Your task to perform on an android device: Go to Maps Image 0: 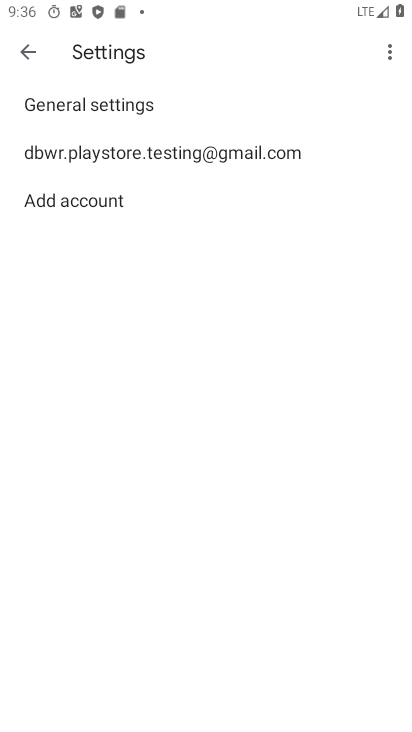
Step 0: press back button
Your task to perform on an android device: Go to Maps Image 1: 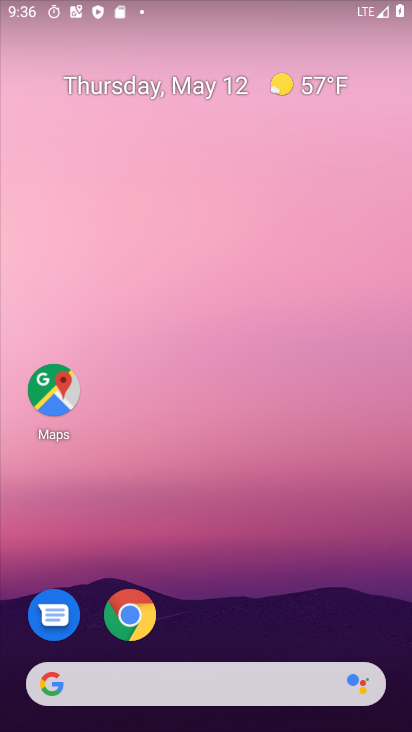
Step 1: click (52, 389)
Your task to perform on an android device: Go to Maps Image 2: 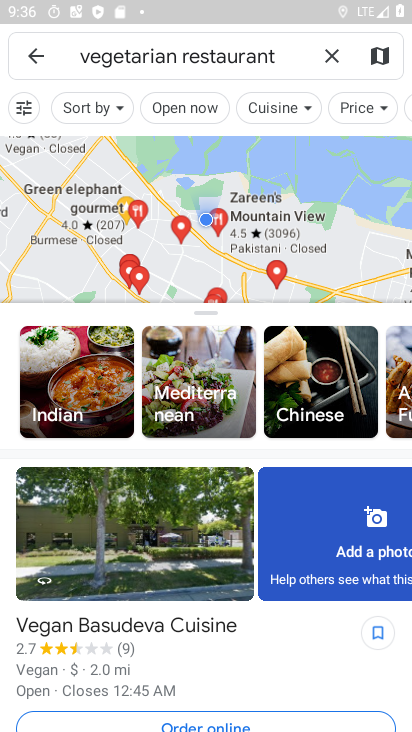
Step 2: click (34, 47)
Your task to perform on an android device: Go to Maps Image 3: 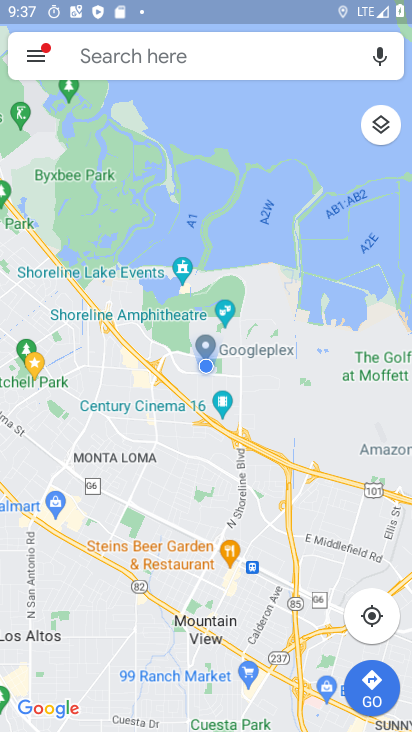
Step 3: task complete